Your task to perform on an android device: change notifications settings Image 0: 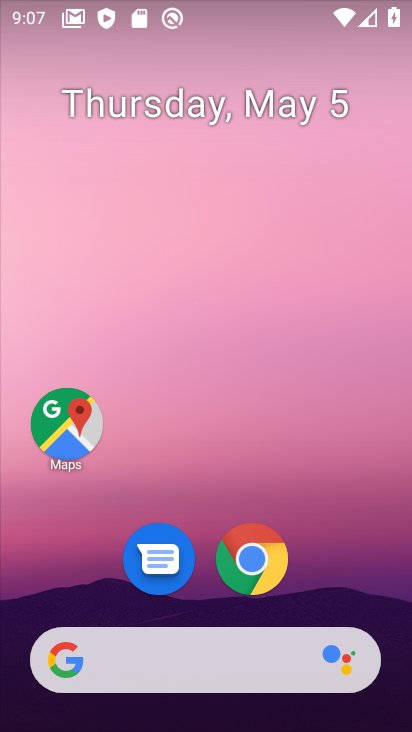
Step 0: task complete